Your task to perform on an android device: Open Chrome and go to settings Image 0: 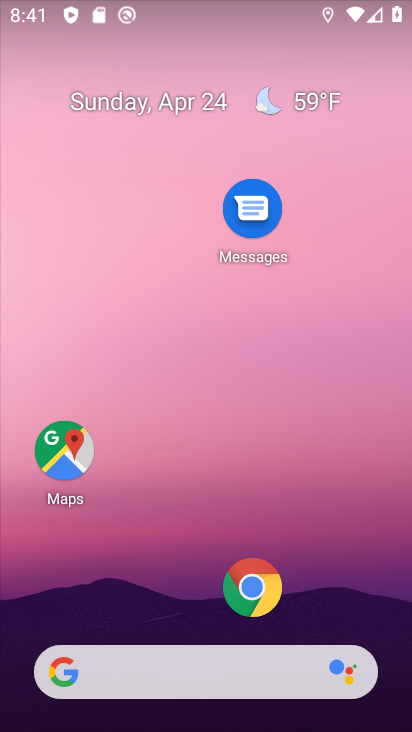
Step 0: click (251, 582)
Your task to perform on an android device: Open Chrome and go to settings Image 1: 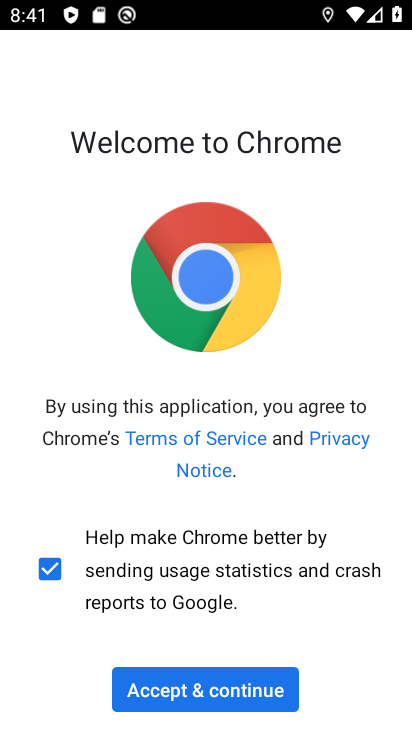
Step 1: click (191, 687)
Your task to perform on an android device: Open Chrome and go to settings Image 2: 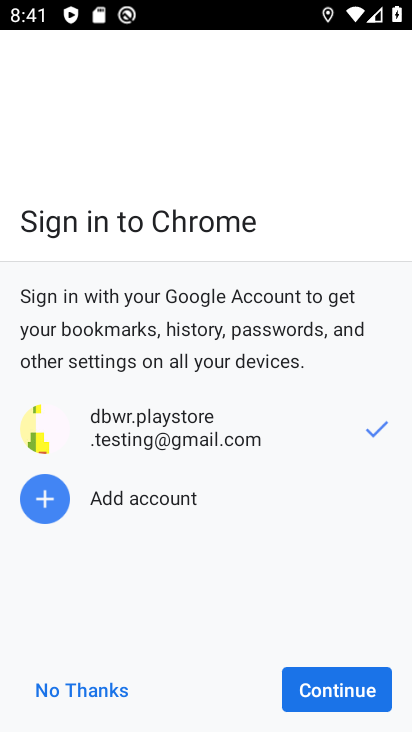
Step 2: click (376, 690)
Your task to perform on an android device: Open Chrome and go to settings Image 3: 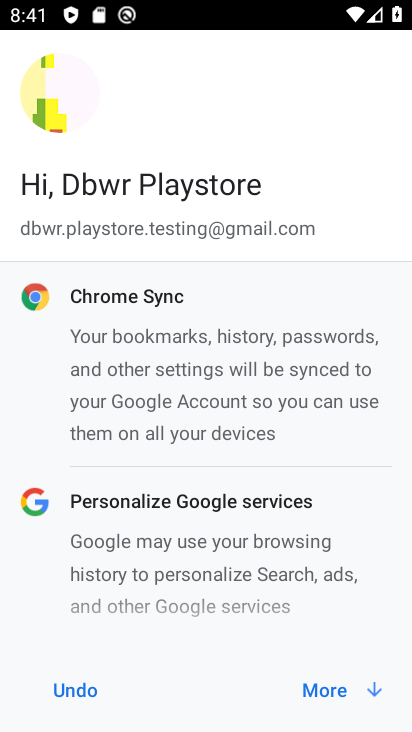
Step 3: click (352, 690)
Your task to perform on an android device: Open Chrome and go to settings Image 4: 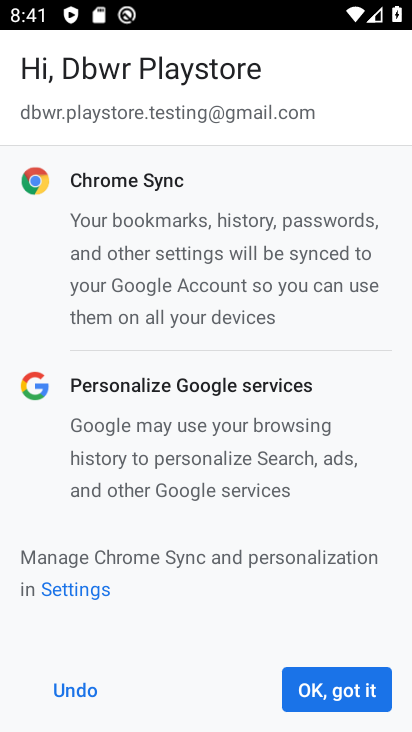
Step 4: click (352, 690)
Your task to perform on an android device: Open Chrome and go to settings Image 5: 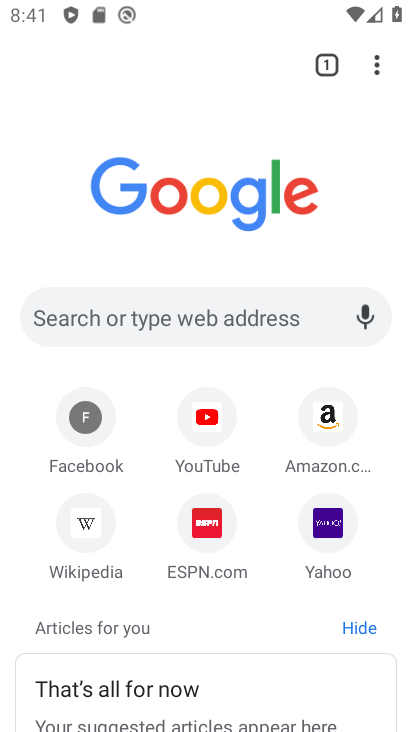
Step 5: click (375, 65)
Your task to perform on an android device: Open Chrome and go to settings Image 6: 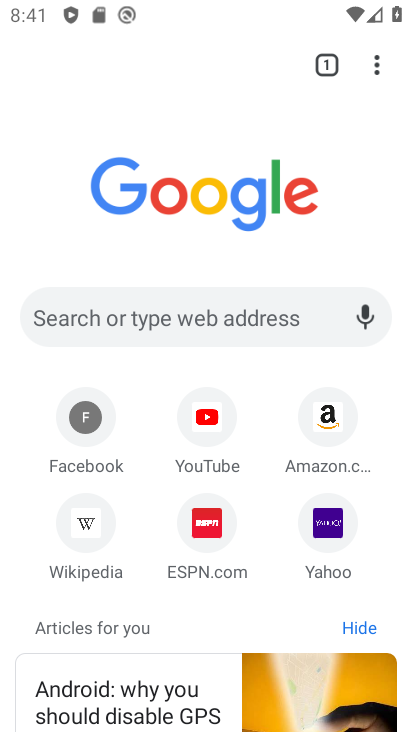
Step 6: click (372, 69)
Your task to perform on an android device: Open Chrome and go to settings Image 7: 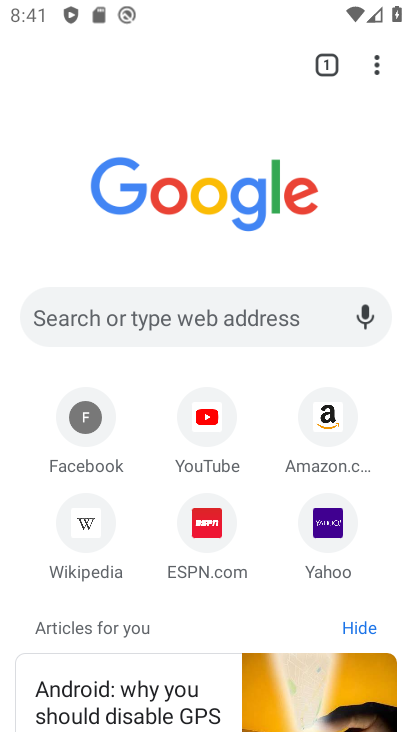
Step 7: click (373, 75)
Your task to perform on an android device: Open Chrome and go to settings Image 8: 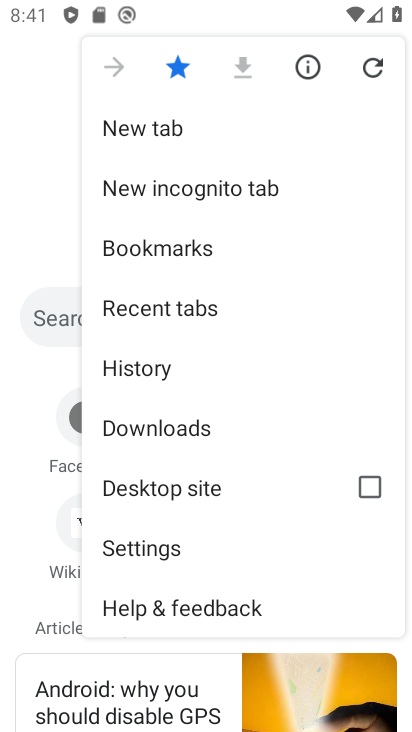
Step 8: click (151, 541)
Your task to perform on an android device: Open Chrome and go to settings Image 9: 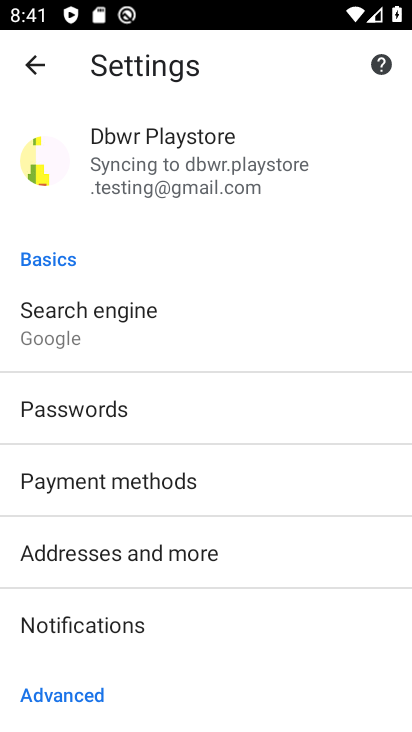
Step 9: task complete